Your task to perform on an android device: Open the Play Movies app and select the watchlist tab. Image 0: 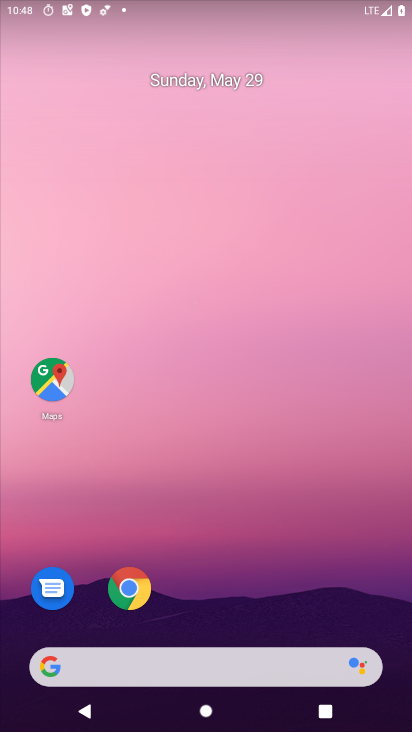
Step 0: drag from (219, 606) to (209, 227)
Your task to perform on an android device: Open the Play Movies app and select the watchlist tab. Image 1: 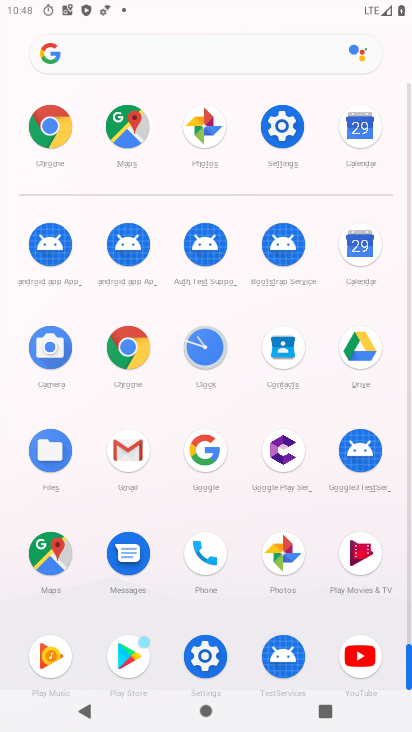
Step 1: click (368, 569)
Your task to perform on an android device: Open the Play Movies app and select the watchlist tab. Image 2: 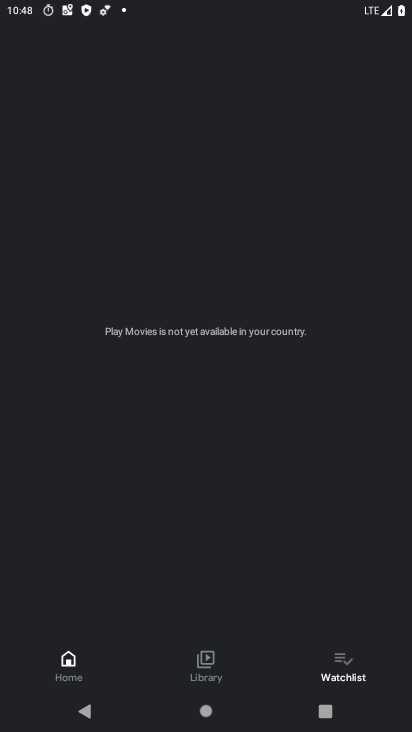
Step 2: click (356, 660)
Your task to perform on an android device: Open the Play Movies app and select the watchlist tab. Image 3: 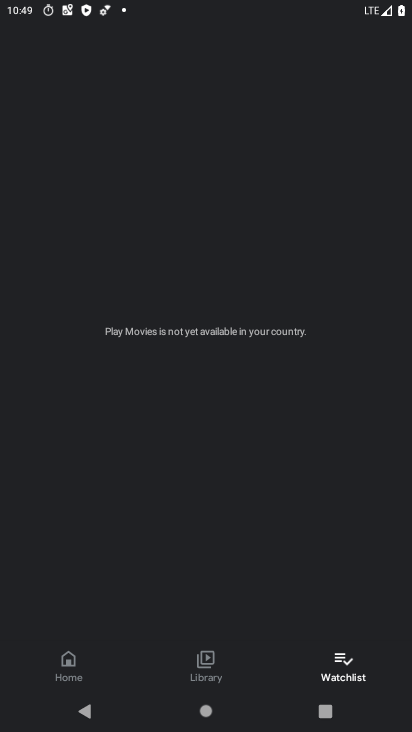
Step 3: task complete